Your task to perform on an android device: Show me the best basketball shoes on Nike.com Image 0: 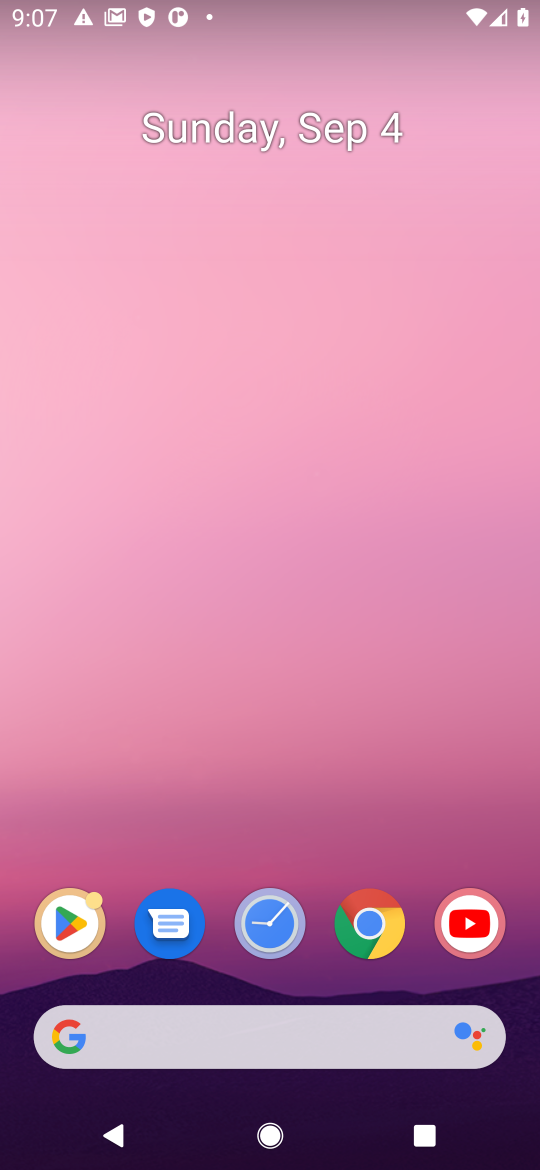
Step 0: press home button
Your task to perform on an android device: Show me the best basketball shoes on Nike.com Image 1: 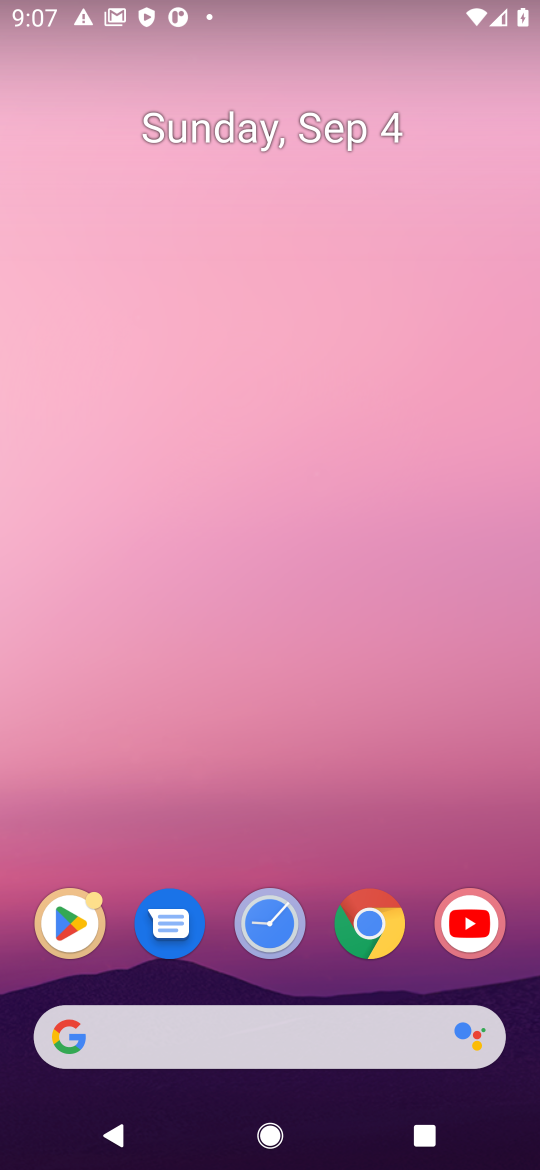
Step 1: click (371, 1034)
Your task to perform on an android device: Show me the best basketball shoes on Nike.com Image 2: 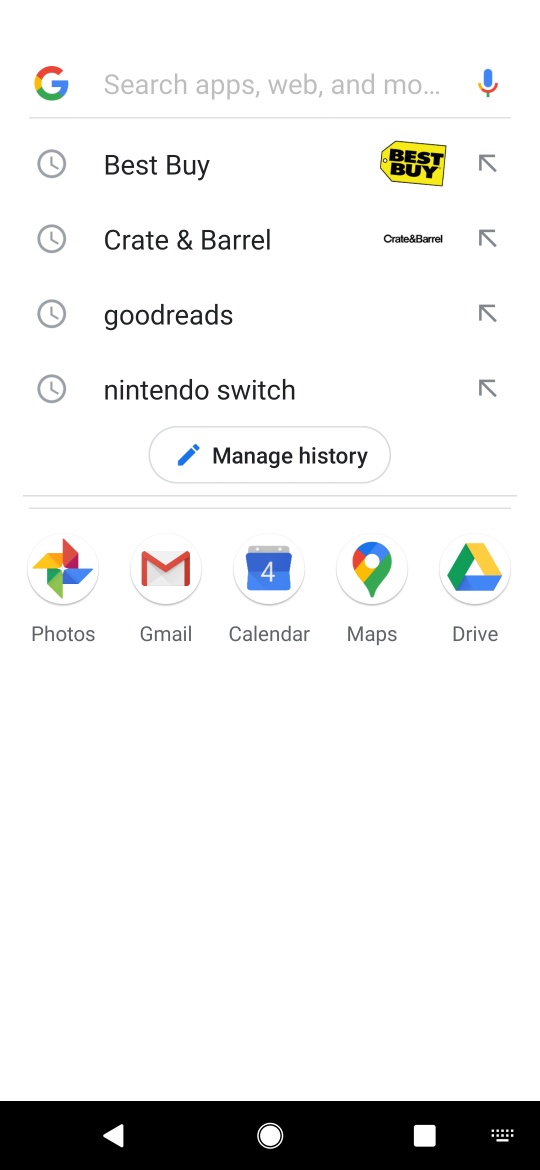
Step 2: press enter
Your task to perform on an android device: Show me the best basketball shoes on Nike.com Image 3: 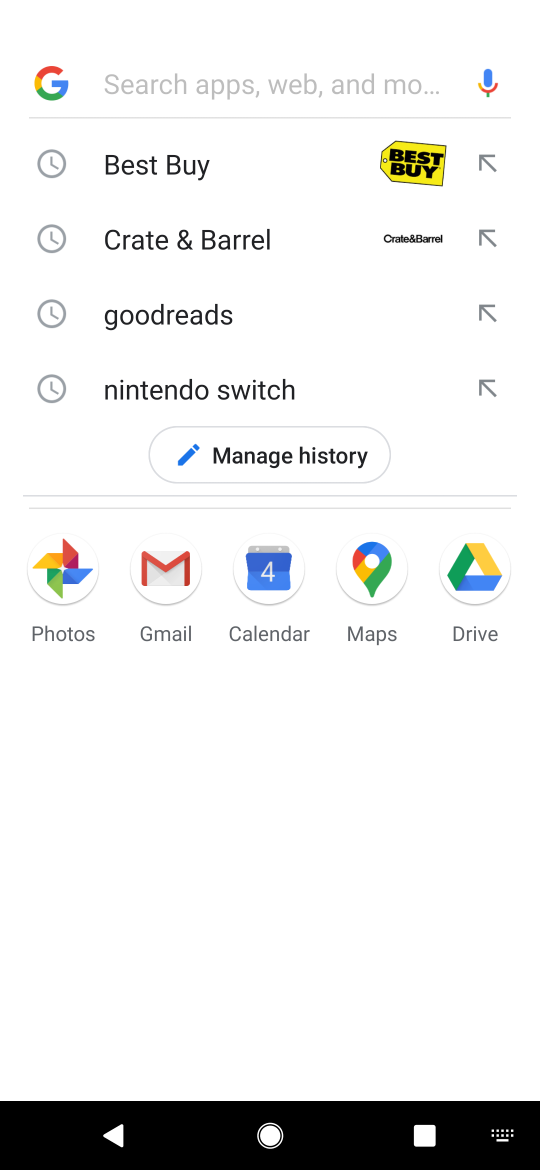
Step 3: type "nike.com"
Your task to perform on an android device: Show me the best basketball shoes on Nike.com Image 4: 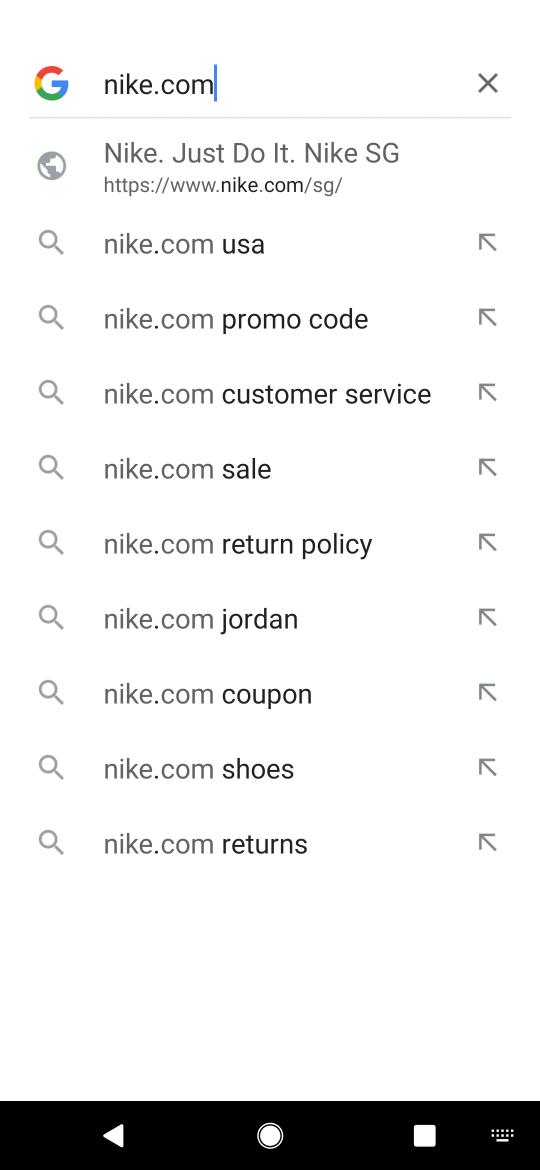
Step 4: click (270, 160)
Your task to perform on an android device: Show me the best basketball shoes on Nike.com Image 5: 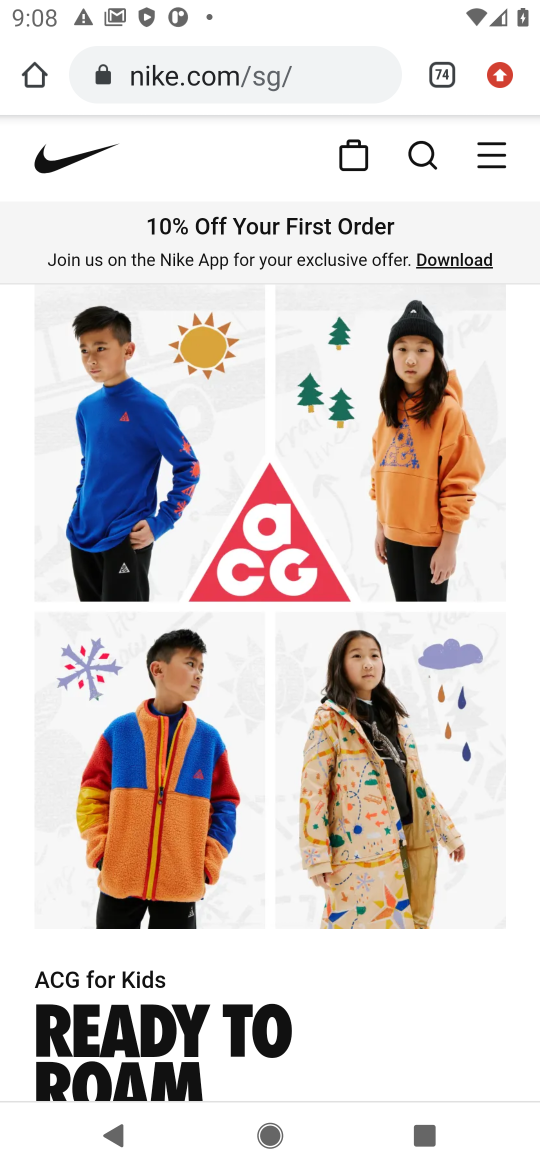
Step 5: click (423, 155)
Your task to perform on an android device: Show me the best basketball shoes on Nike.com Image 6: 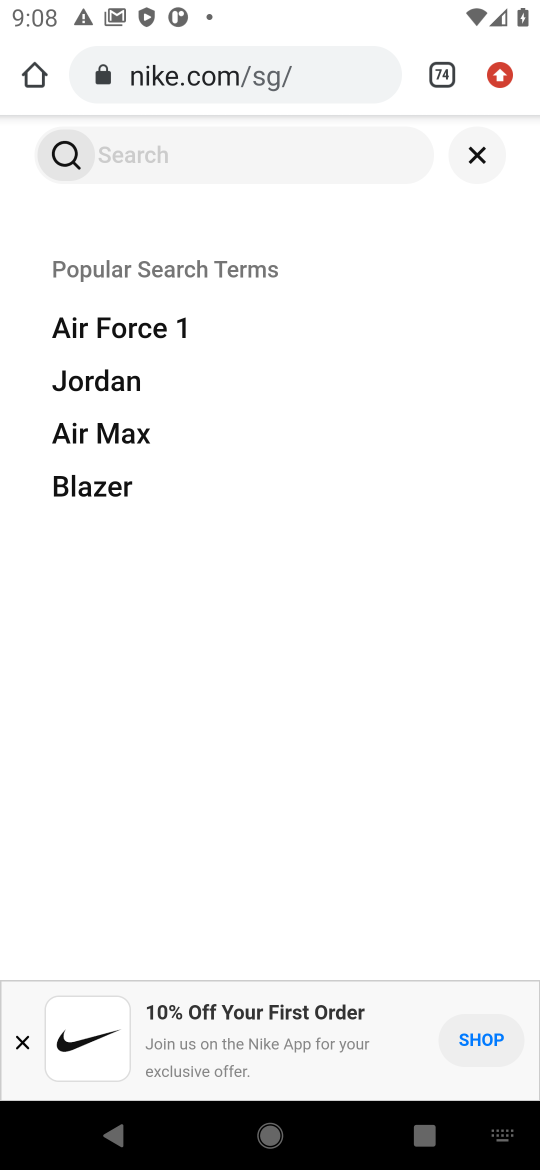
Step 6: press enter
Your task to perform on an android device: Show me the best basketball shoes on Nike.com Image 7: 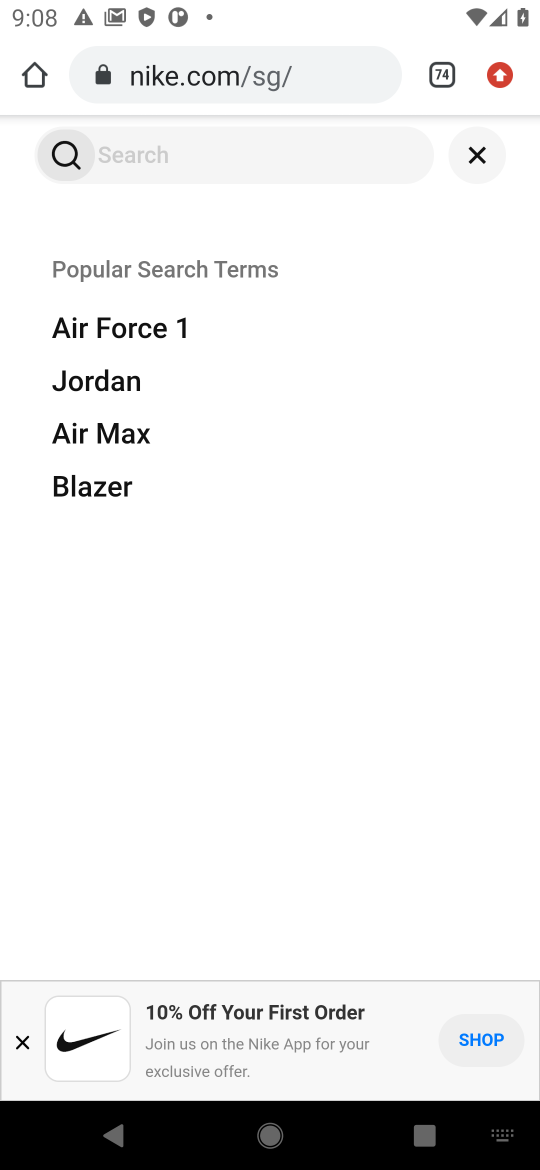
Step 7: type "best basketball shoes"
Your task to perform on an android device: Show me the best basketball shoes on Nike.com Image 8: 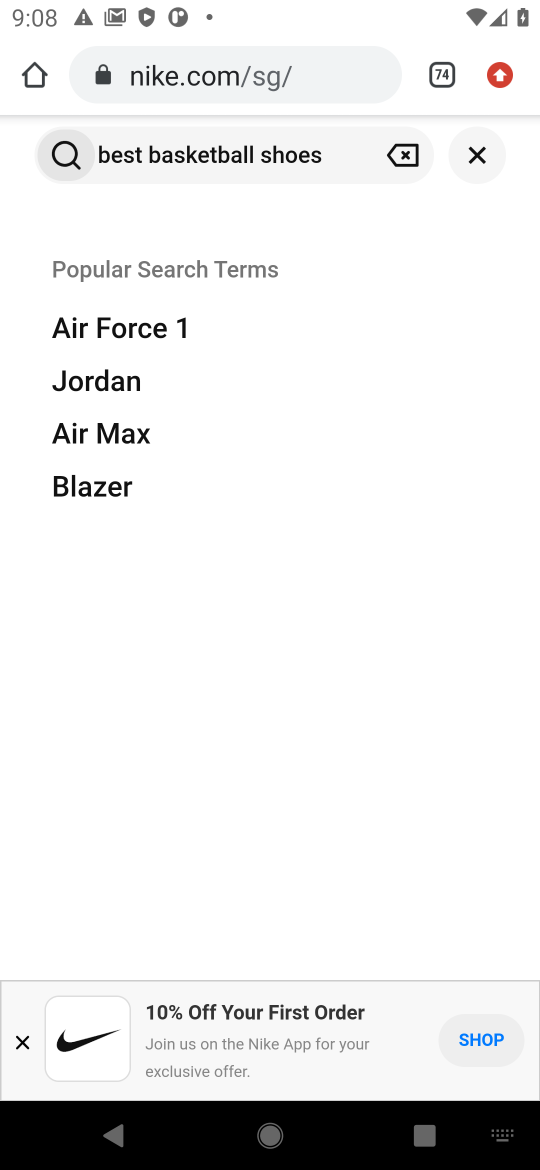
Step 8: click (50, 149)
Your task to perform on an android device: Show me the best basketball shoes on Nike.com Image 9: 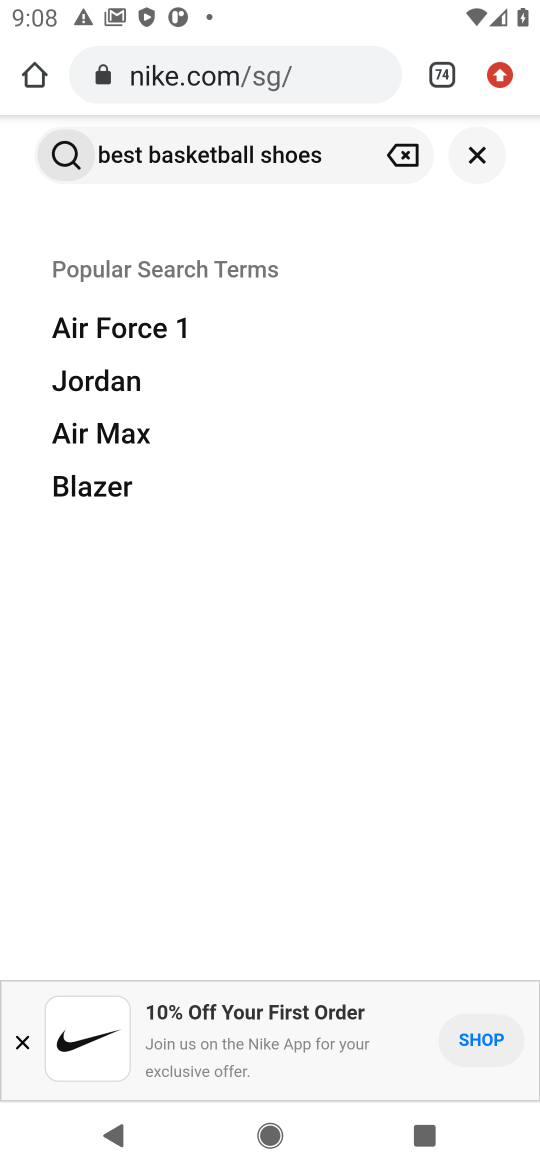
Step 9: click (64, 151)
Your task to perform on an android device: Show me the best basketball shoes on Nike.com Image 10: 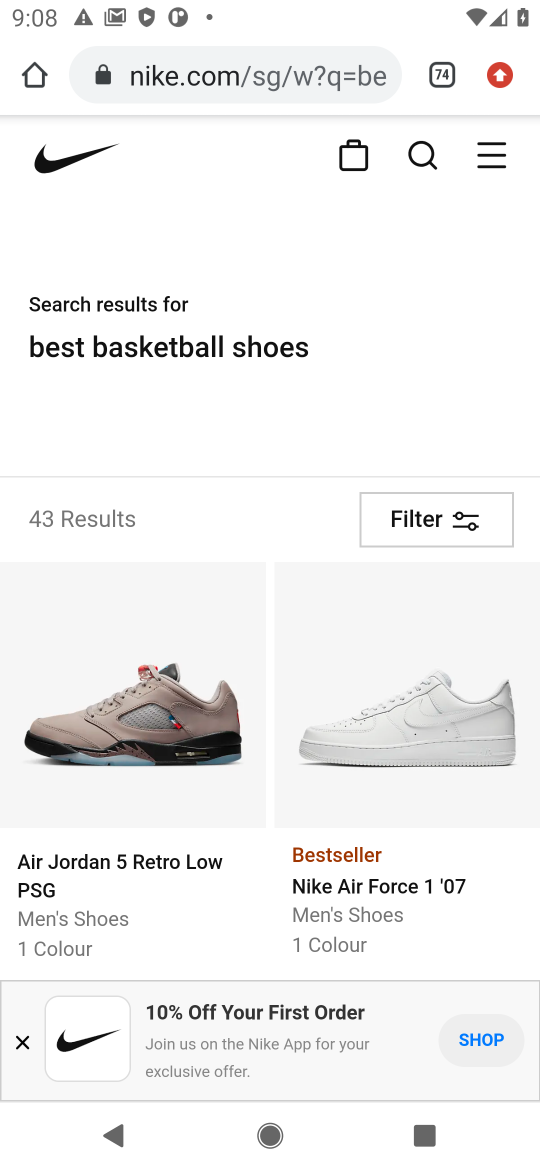
Step 10: task complete